Your task to perform on an android device: Open eBay Image 0: 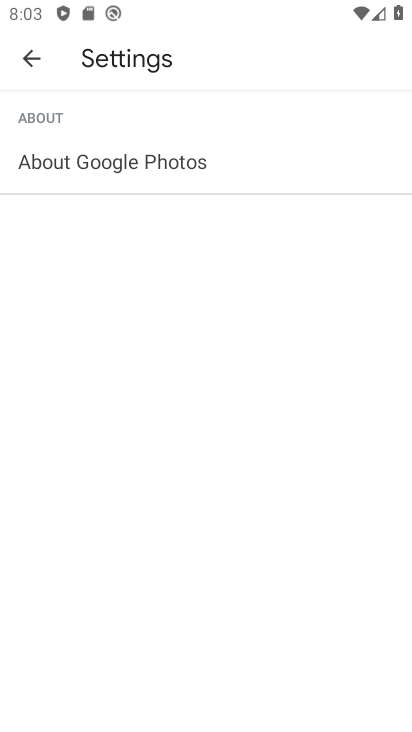
Step 0: press home button
Your task to perform on an android device: Open eBay Image 1: 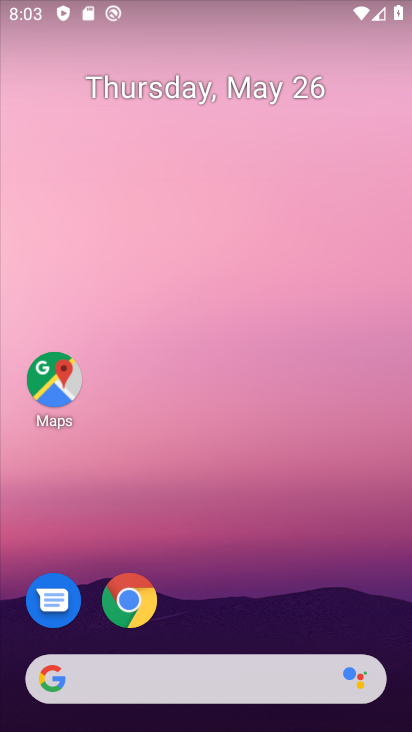
Step 1: click (126, 603)
Your task to perform on an android device: Open eBay Image 2: 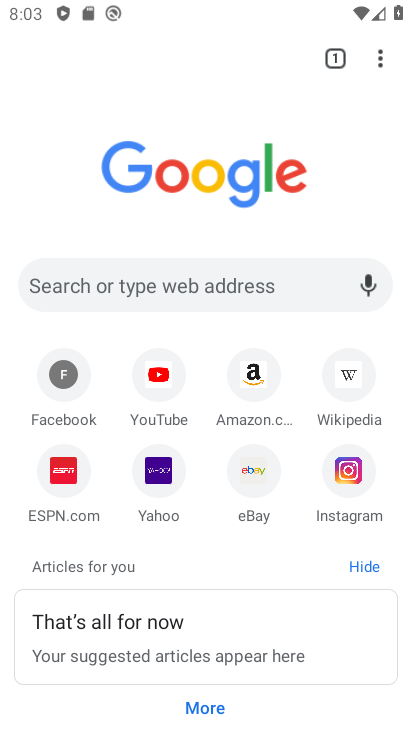
Step 2: click (260, 481)
Your task to perform on an android device: Open eBay Image 3: 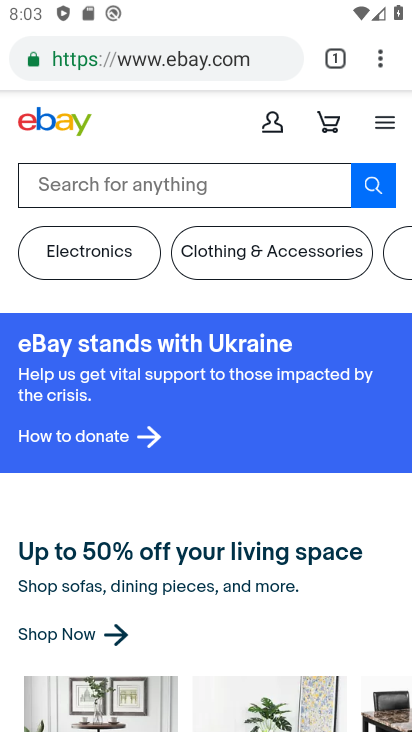
Step 3: task complete